Your task to perform on an android device: Go to sound settings Image 0: 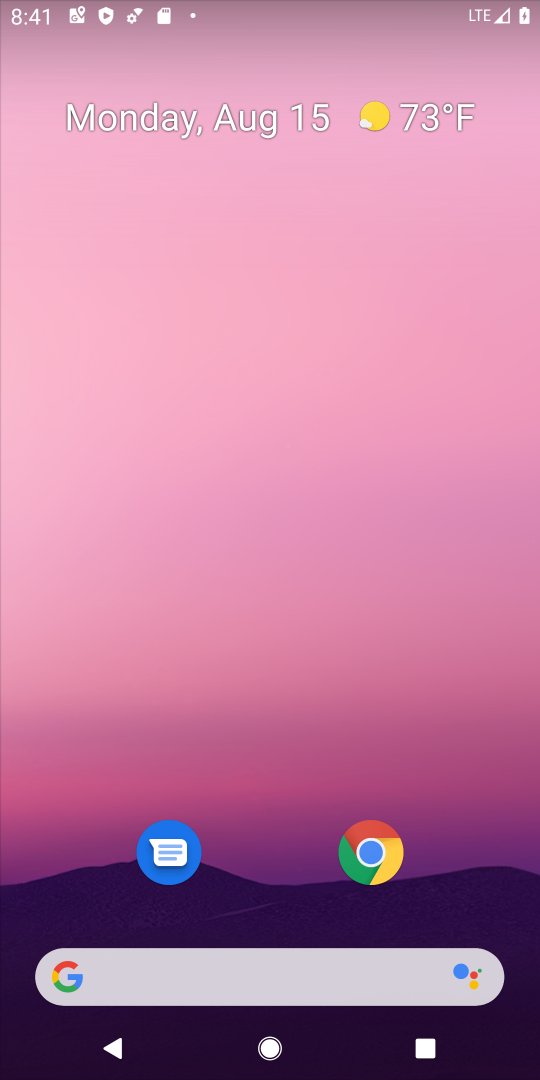
Step 0: drag from (244, 993) to (230, 147)
Your task to perform on an android device: Go to sound settings Image 1: 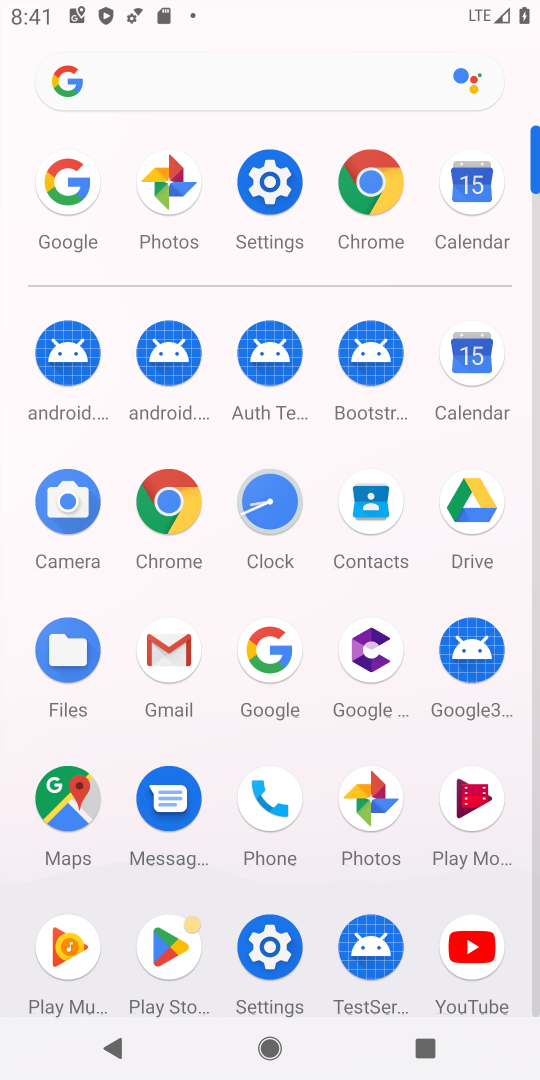
Step 1: click (267, 183)
Your task to perform on an android device: Go to sound settings Image 2: 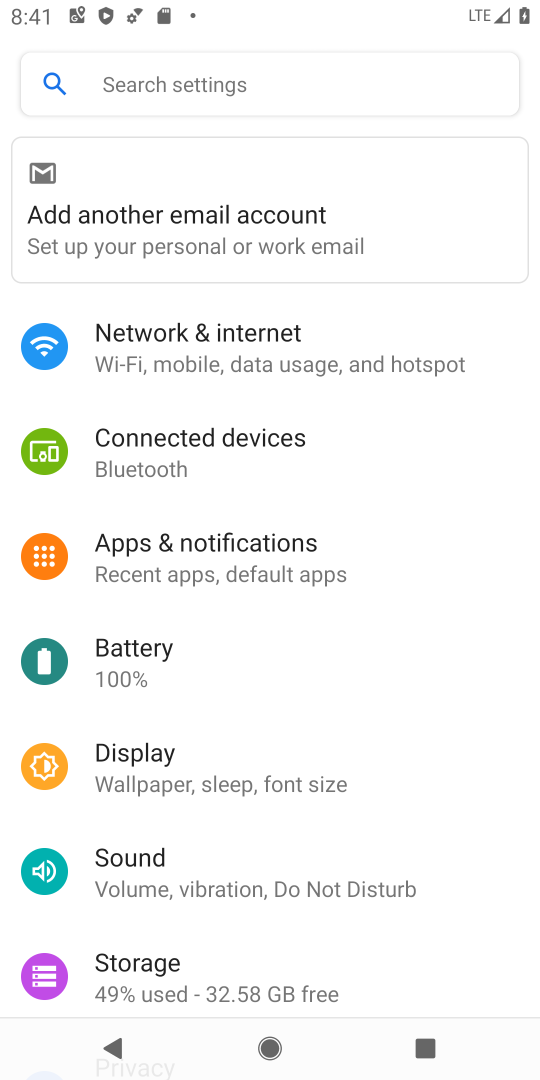
Step 2: click (110, 871)
Your task to perform on an android device: Go to sound settings Image 3: 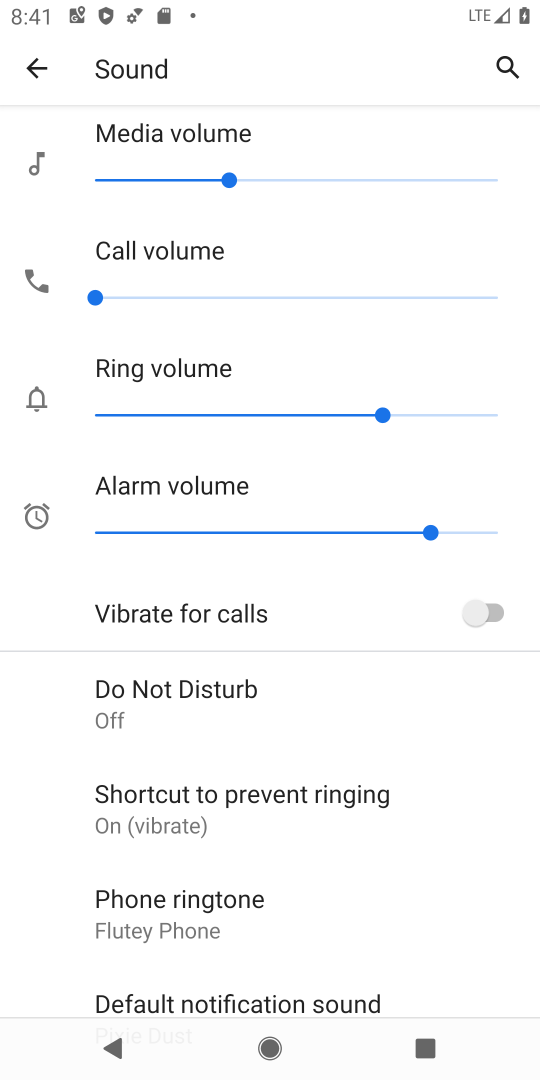
Step 3: task complete